Your task to perform on an android device: change text size in settings app Image 0: 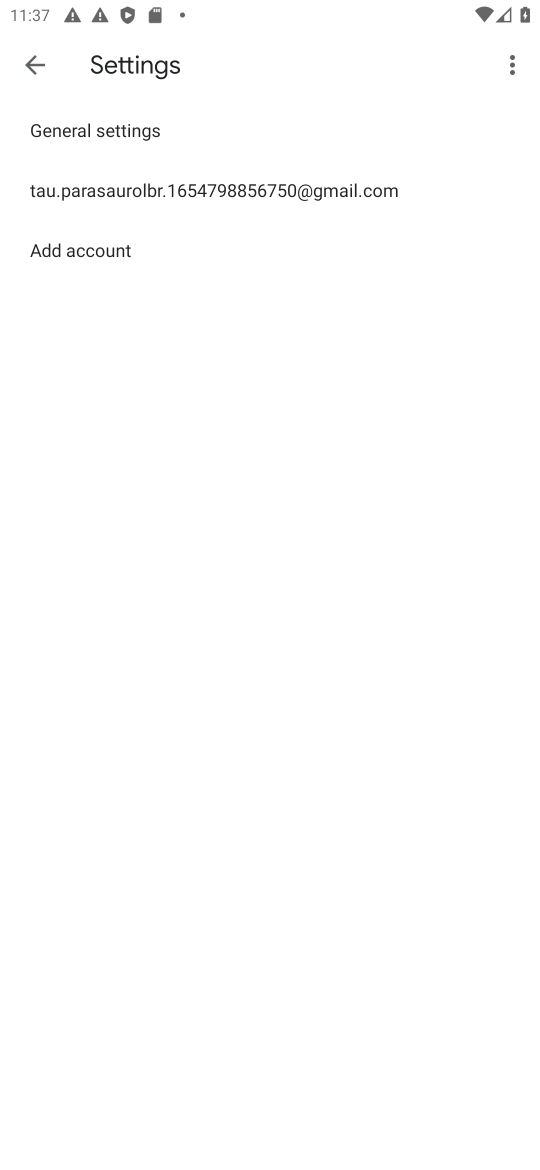
Step 0: press home button
Your task to perform on an android device: change text size in settings app Image 1: 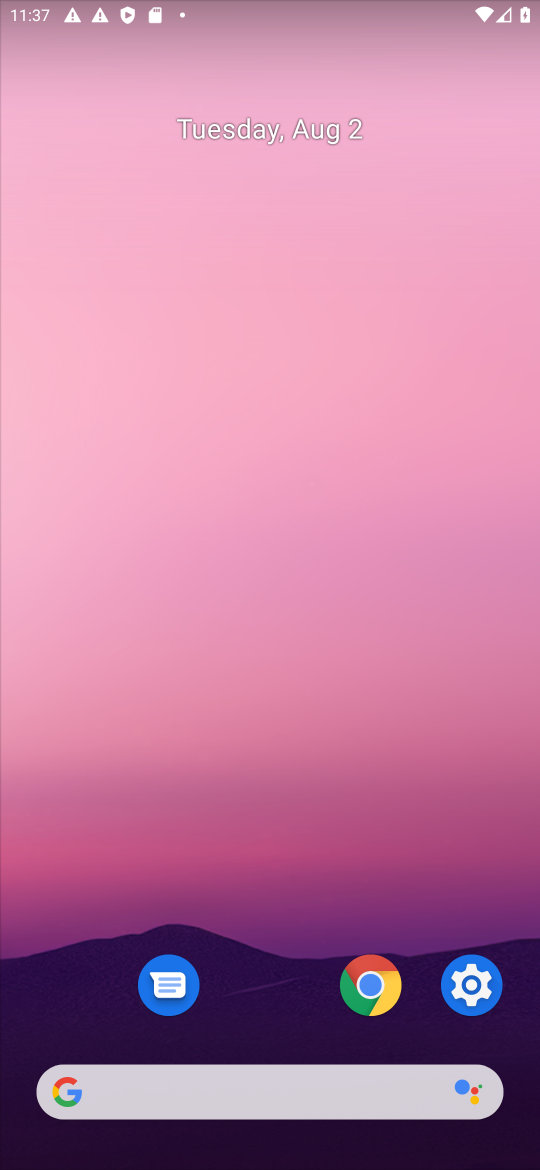
Step 1: click (461, 985)
Your task to perform on an android device: change text size in settings app Image 2: 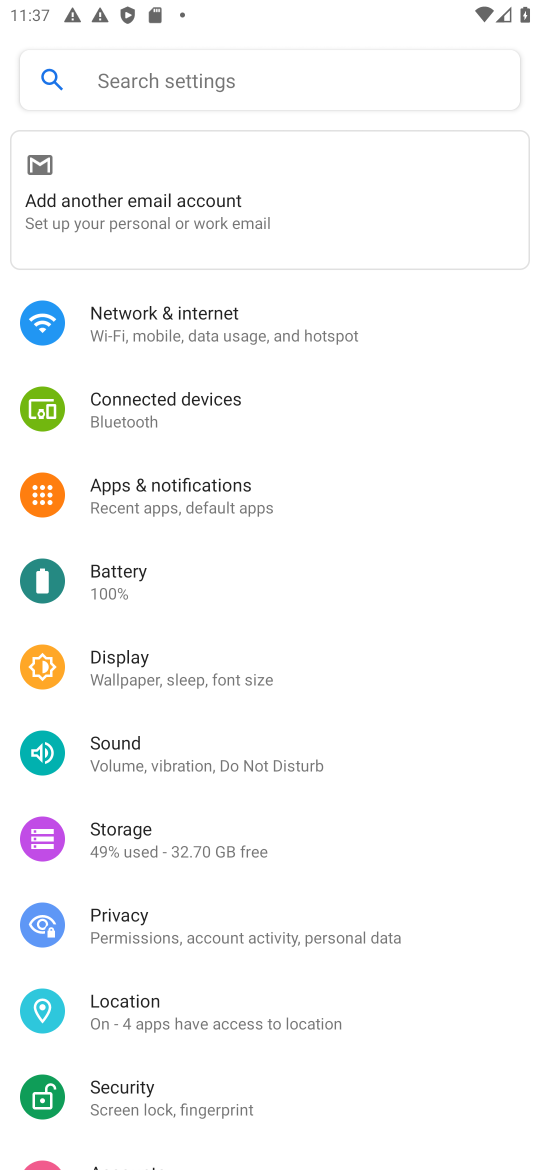
Step 2: click (173, 79)
Your task to perform on an android device: change text size in settings app Image 3: 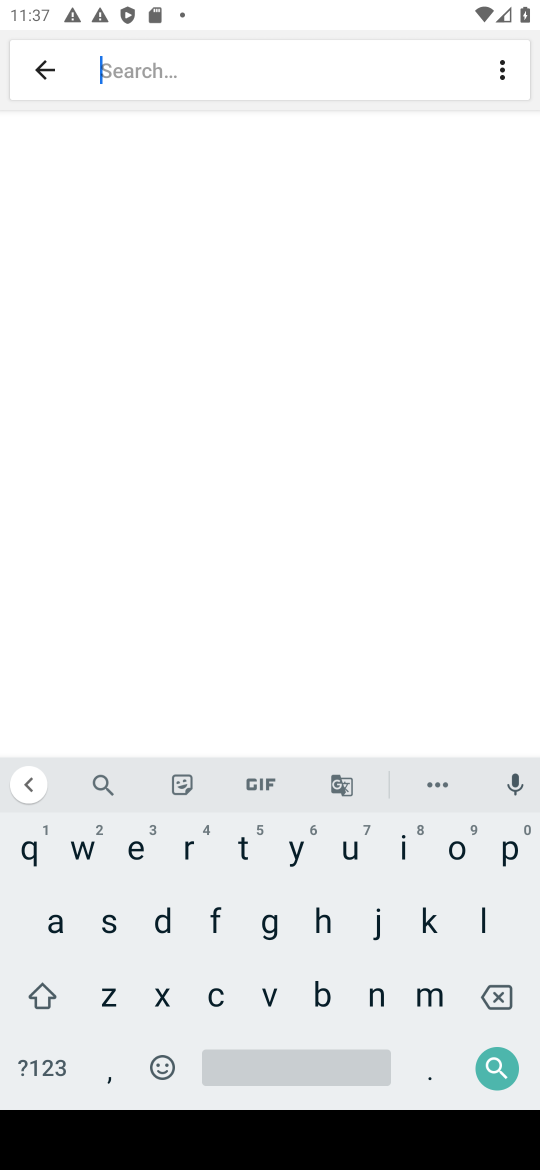
Step 3: click (105, 921)
Your task to perform on an android device: change text size in settings app Image 4: 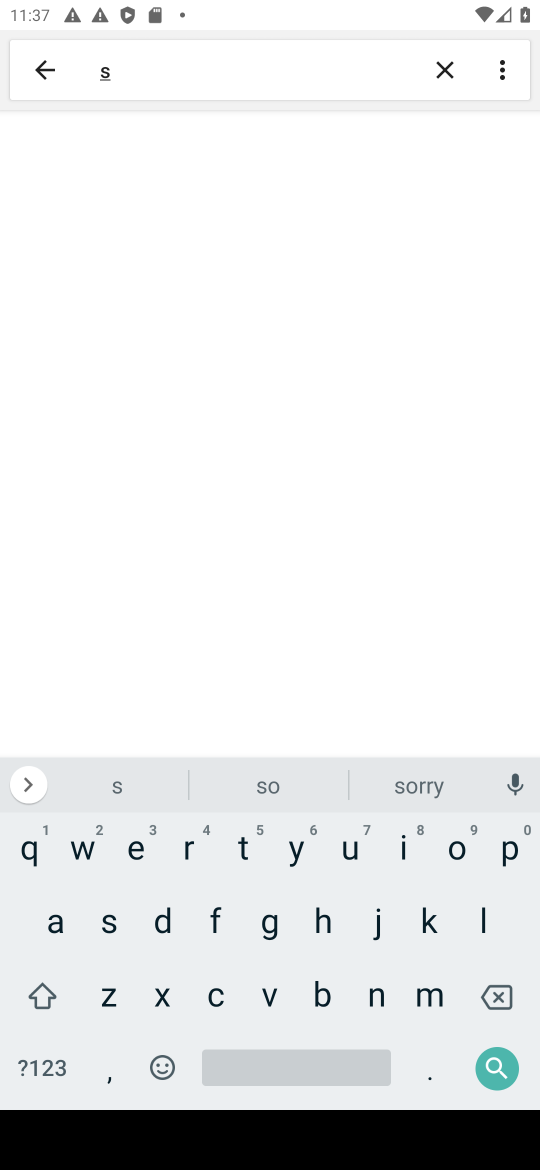
Step 4: click (406, 854)
Your task to perform on an android device: change text size in settings app Image 5: 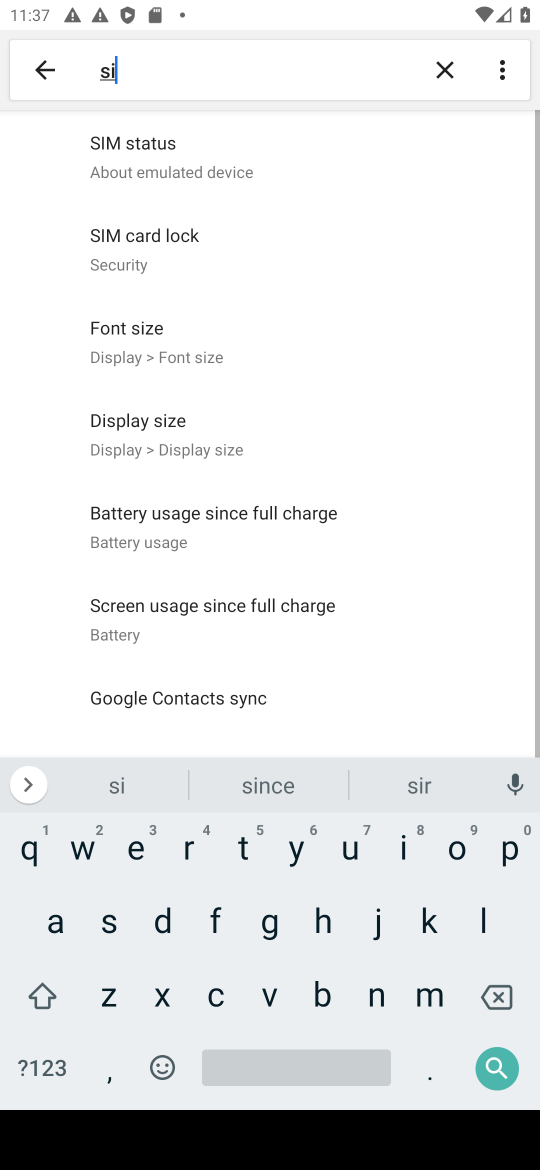
Step 5: click (104, 1002)
Your task to perform on an android device: change text size in settings app Image 6: 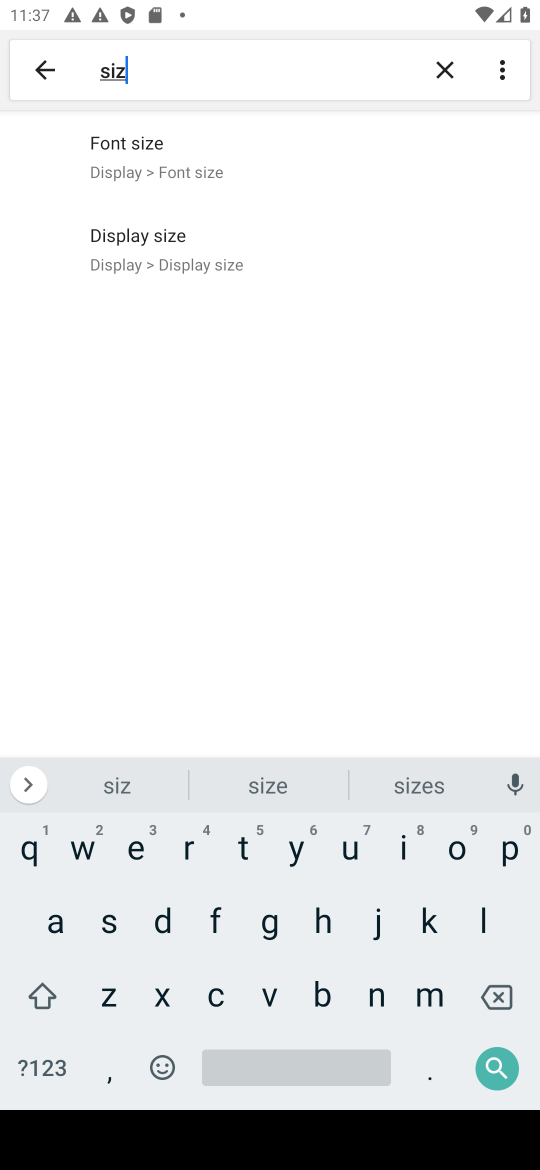
Step 6: click (203, 153)
Your task to perform on an android device: change text size in settings app Image 7: 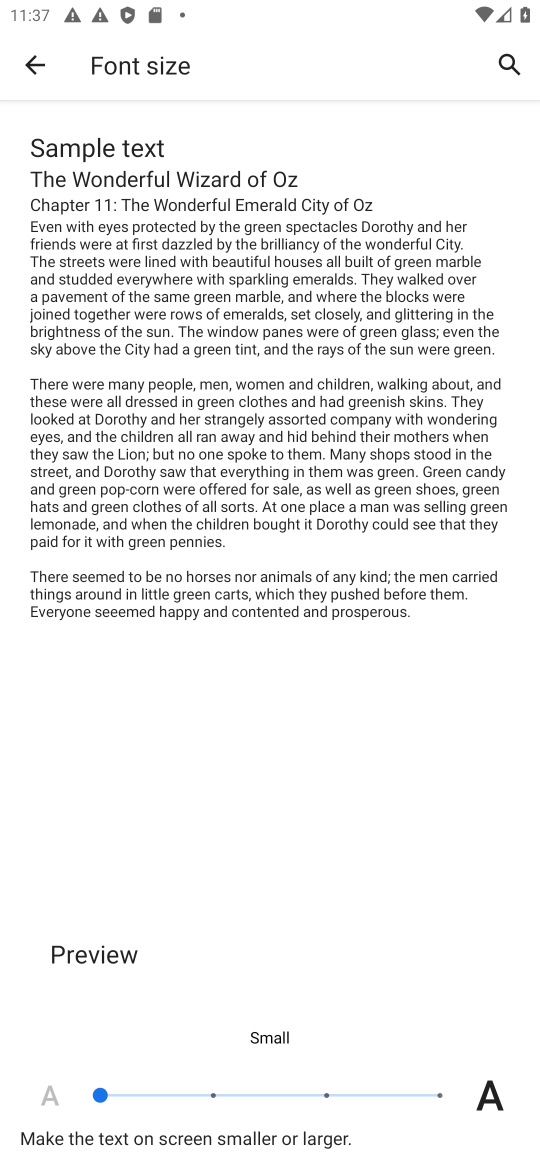
Step 7: click (197, 1092)
Your task to perform on an android device: change text size in settings app Image 8: 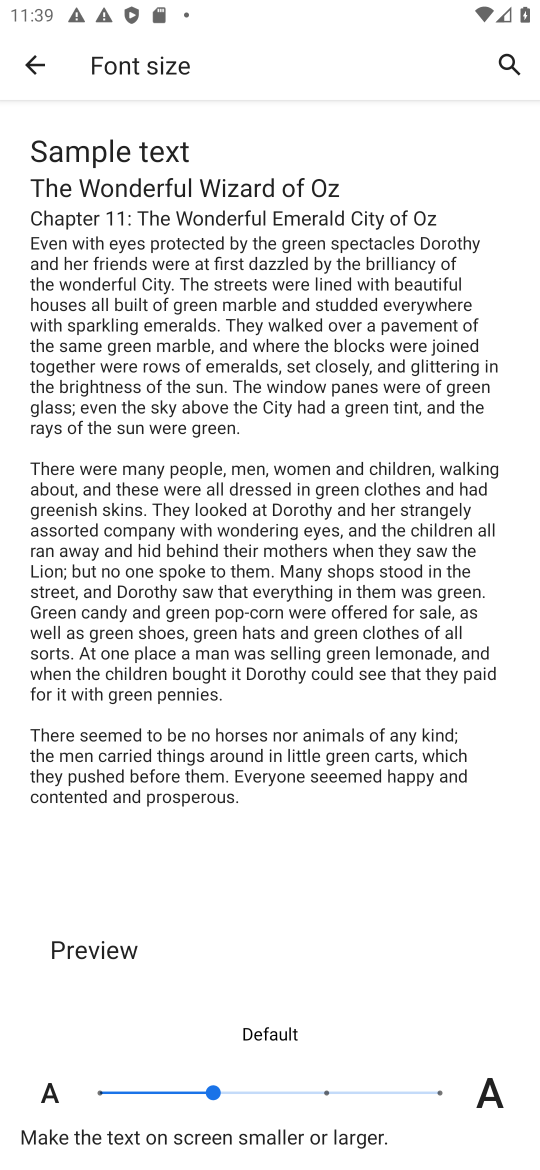
Step 8: task complete